Your task to perform on an android device: toggle translation in the chrome app Image 0: 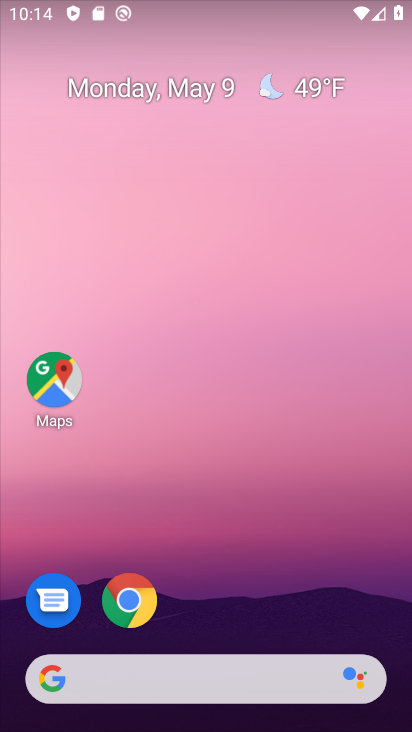
Step 0: drag from (323, 557) to (275, 198)
Your task to perform on an android device: toggle translation in the chrome app Image 1: 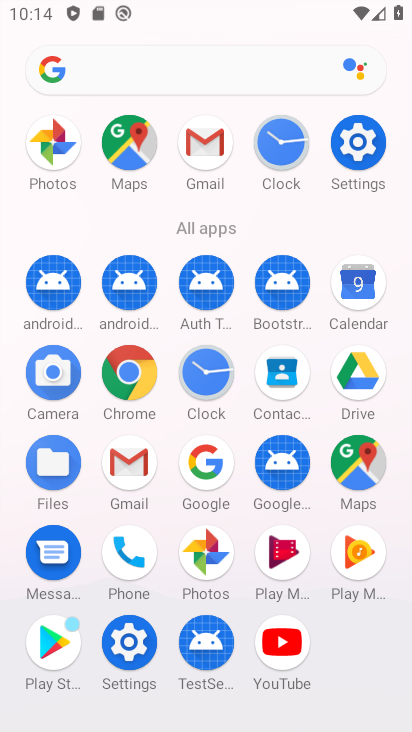
Step 1: click (131, 385)
Your task to perform on an android device: toggle translation in the chrome app Image 2: 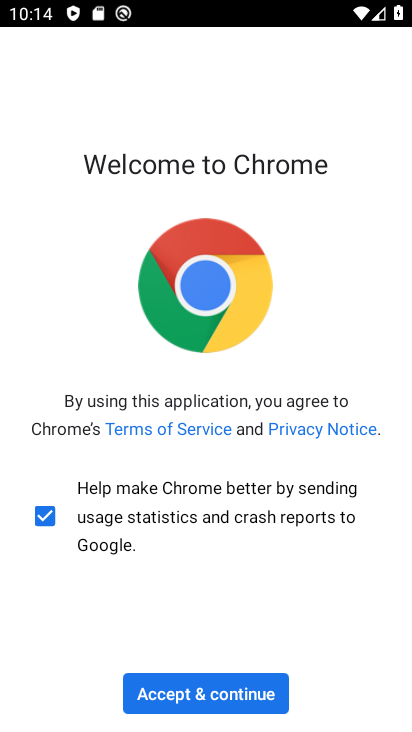
Step 2: click (241, 698)
Your task to perform on an android device: toggle translation in the chrome app Image 3: 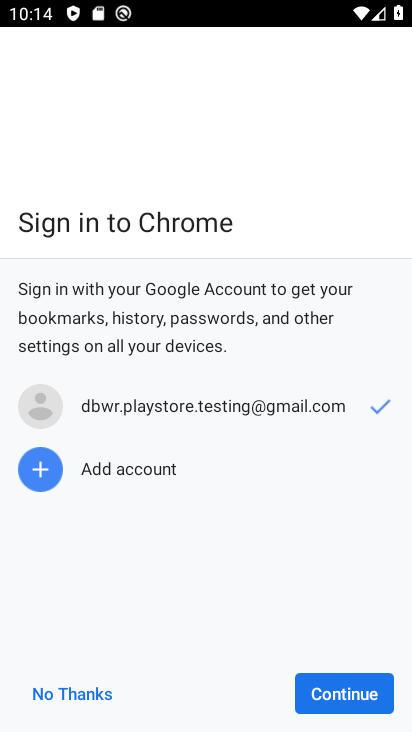
Step 3: click (331, 690)
Your task to perform on an android device: toggle translation in the chrome app Image 4: 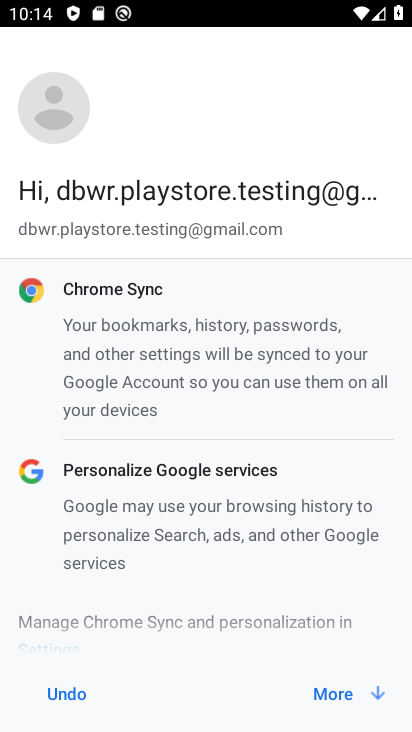
Step 4: click (331, 690)
Your task to perform on an android device: toggle translation in the chrome app Image 5: 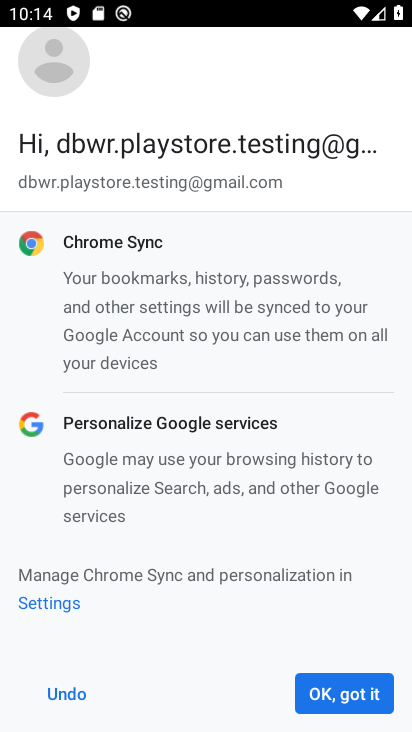
Step 5: click (331, 690)
Your task to perform on an android device: toggle translation in the chrome app Image 6: 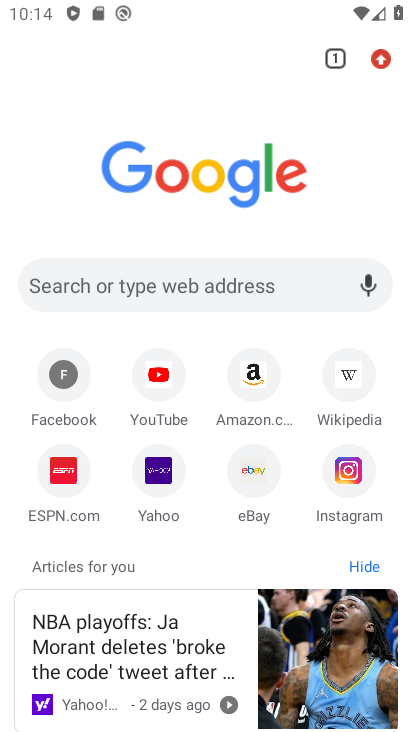
Step 6: drag from (381, 72) to (217, 544)
Your task to perform on an android device: toggle translation in the chrome app Image 7: 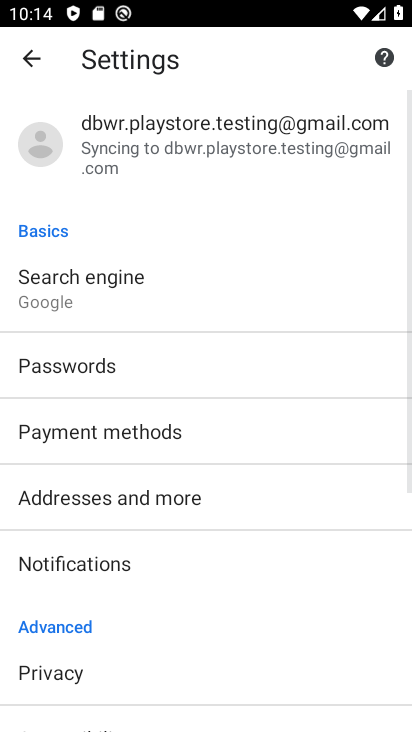
Step 7: drag from (224, 658) to (236, 311)
Your task to perform on an android device: toggle translation in the chrome app Image 8: 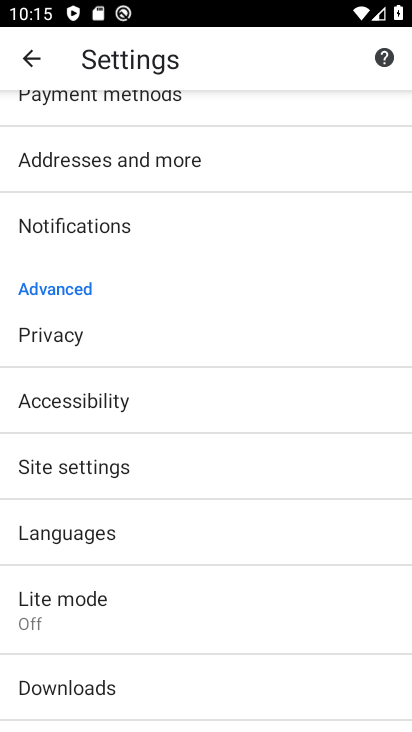
Step 8: click (85, 543)
Your task to perform on an android device: toggle translation in the chrome app Image 9: 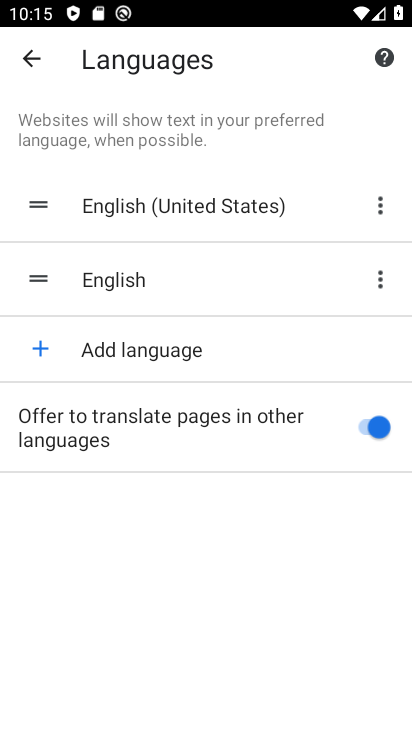
Step 9: click (361, 432)
Your task to perform on an android device: toggle translation in the chrome app Image 10: 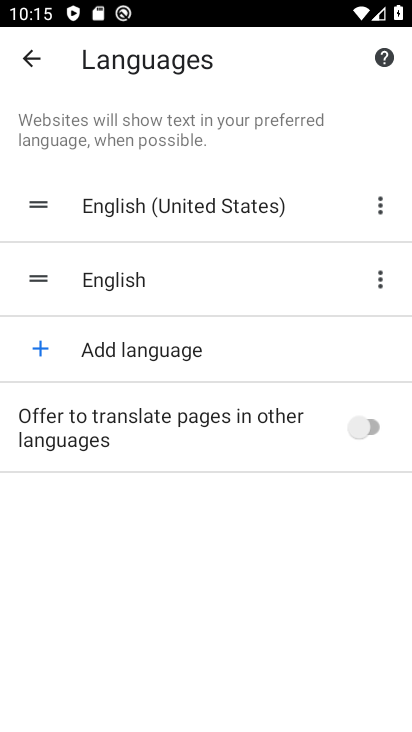
Step 10: task complete